Your task to perform on an android device: manage bookmarks in the chrome app Image 0: 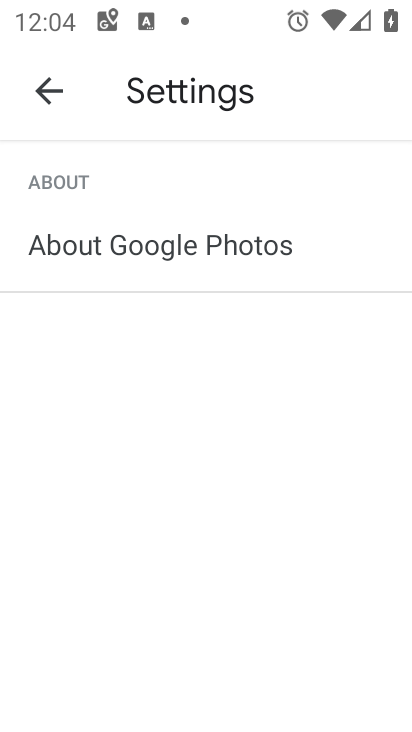
Step 0: press home button
Your task to perform on an android device: manage bookmarks in the chrome app Image 1: 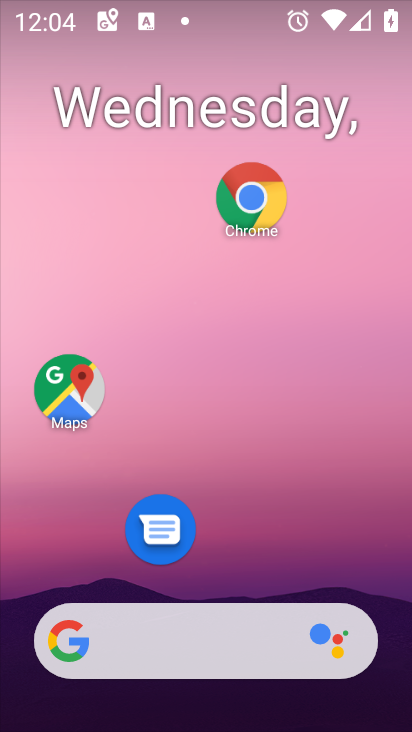
Step 1: drag from (275, 607) to (290, 167)
Your task to perform on an android device: manage bookmarks in the chrome app Image 2: 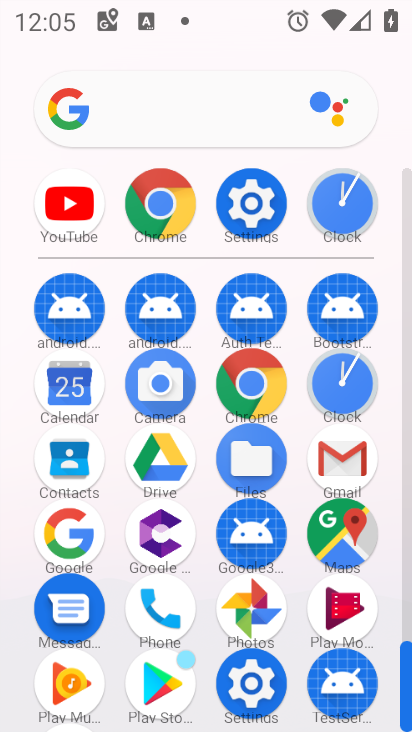
Step 2: click (170, 215)
Your task to perform on an android device: manage bookmarks in the chrome app Image 3: 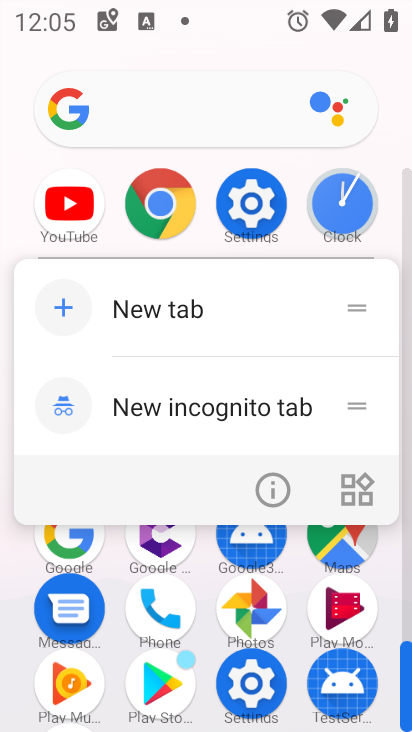
Step 3: click (168, 215)
Your task to perform on an android device: manage bookmarks in the chrome app Image 4: 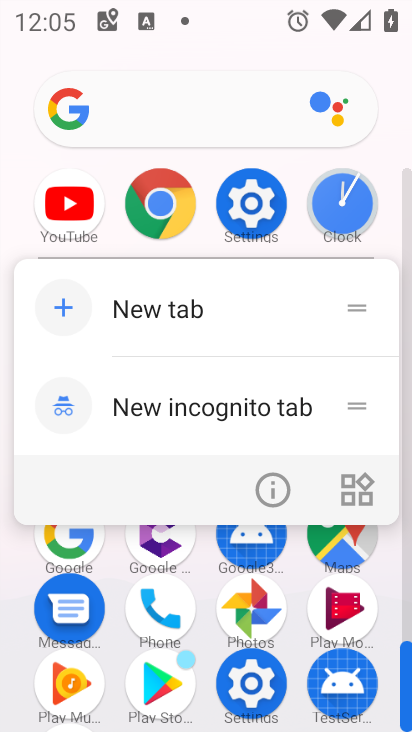
Step 4: click (170, 220)
Your task to perform on an android device: manage bookmarks in the chrome app Image 5: 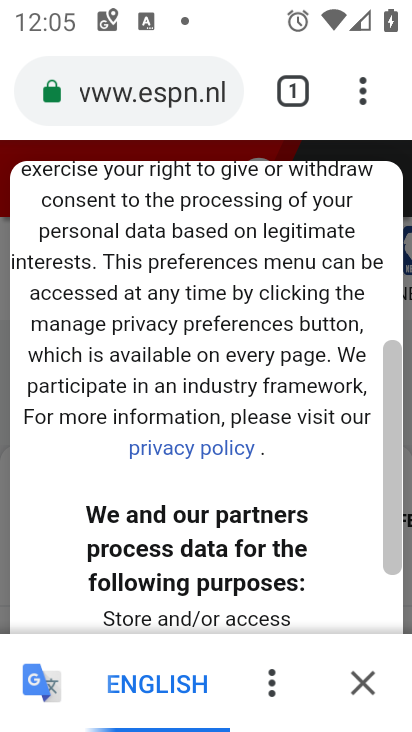
Step 5: click (371, 91)
Your task to perform on an android device: manage bookmarks in the chrome app Image 6: 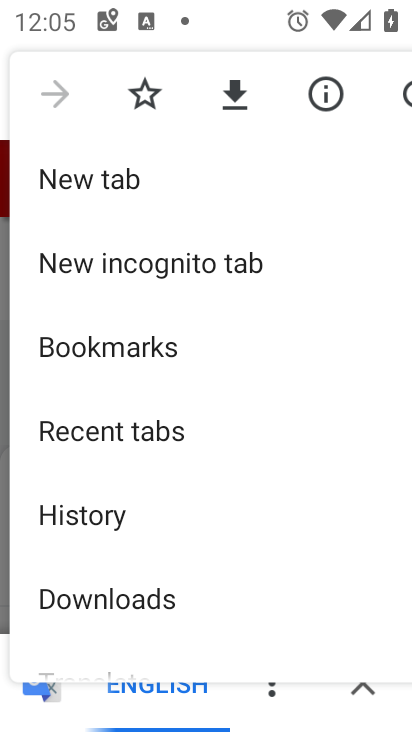
Step 6: click (121, 347)
Your task to perform on an android device: manage bookmarks in the chrome app Image 7: 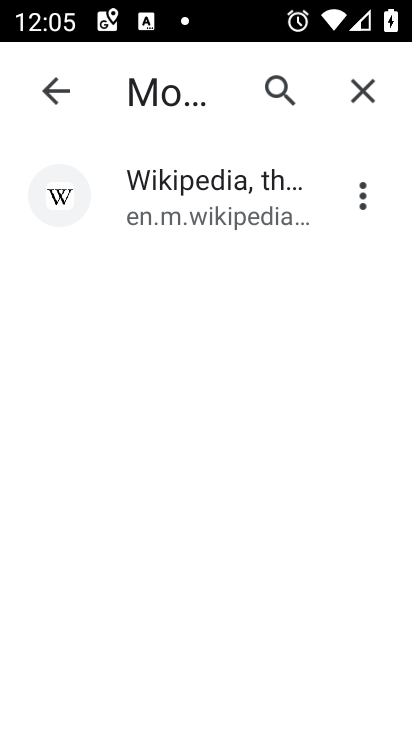
Step 7: task complete